Your task to perform on an android device: change timer sound Image 0: 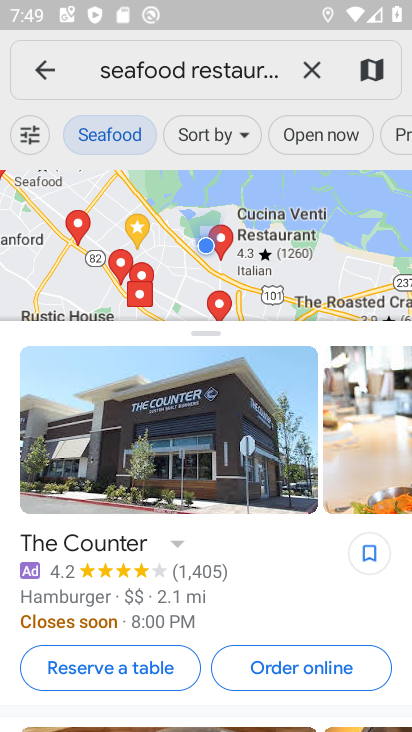
Step 0: press home button
Your task to perform on an android device: change timer sound Image 1: 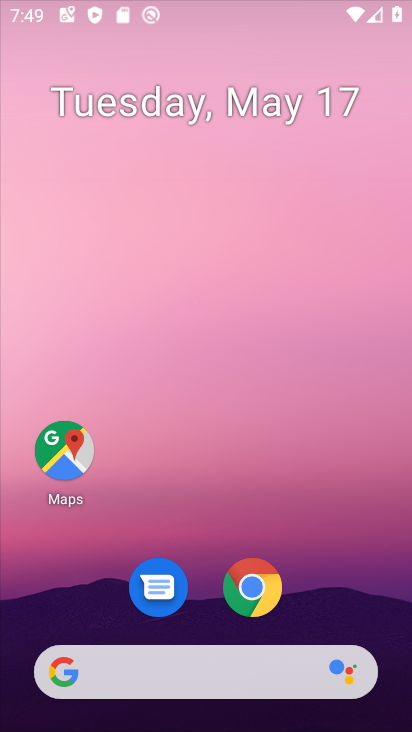
Step 1: drag from (351, 563) to (252, 172)
Your task to perform on an android device: change timer sound Image 2: 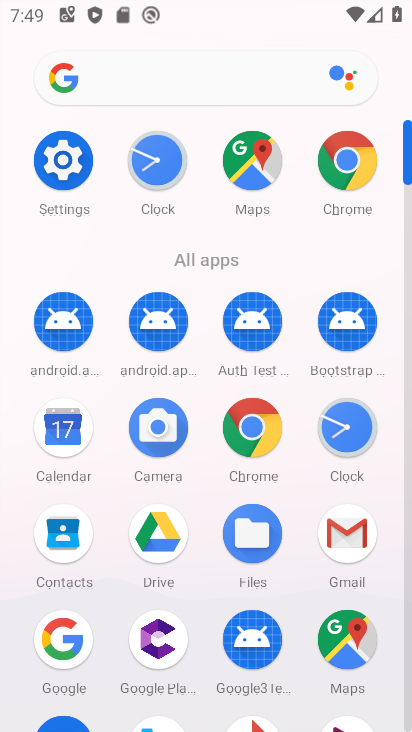
Step 2: click (50, 159)
Your task to perform on an android device: change timer sound Image 3: 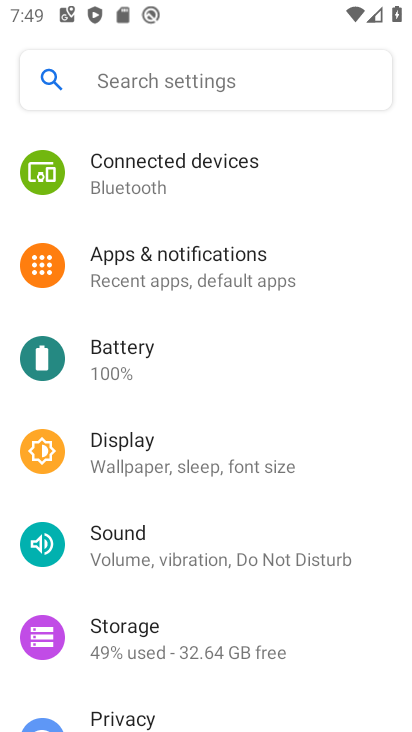
Step 3: click (165, 540)
Your task to perform on an android device: change timer sound Image 4: 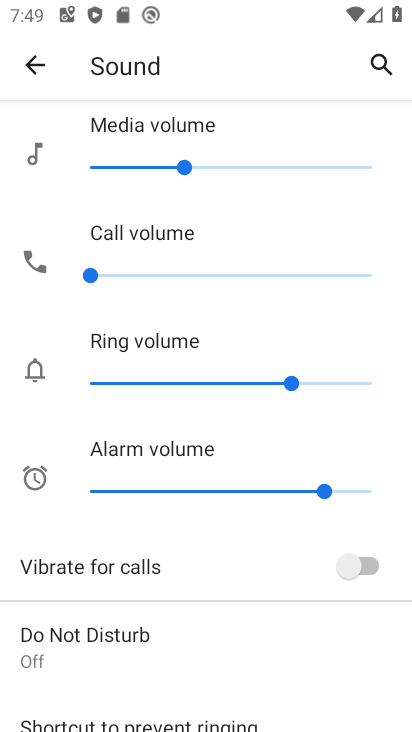
Step 4: drag from (276, 722) to (165, 91)
Your task to perform on an android device: change timer sound Image 5: 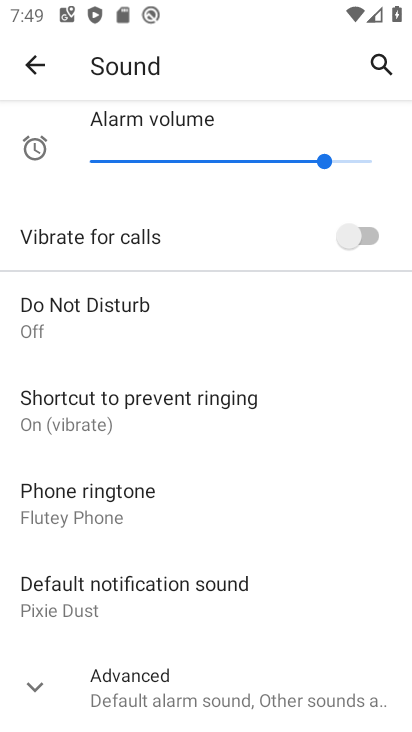
Step 5: drag from (228, 576) to (265, 259)
Your task to perform on an android device: change timer sound Image 6: 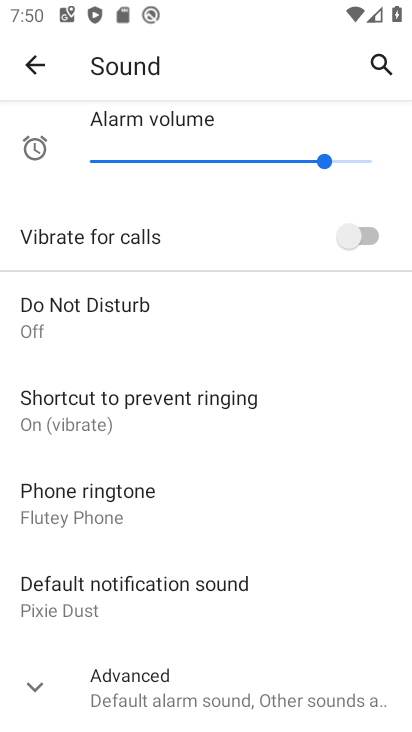
Step 6: click (140, 684)
Your task to perform on an android device: change timer sound Image 7: 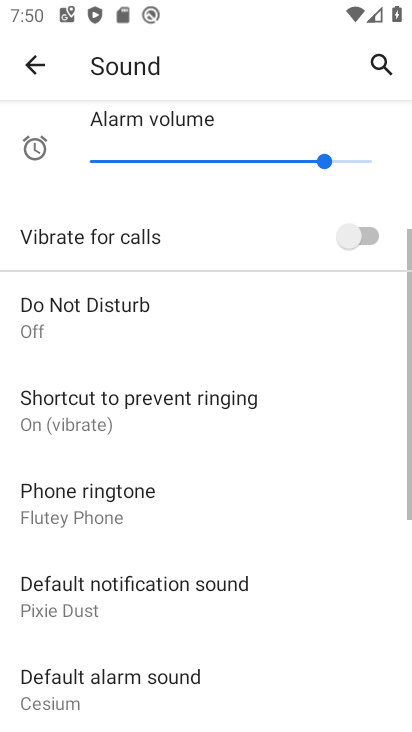
Step 7: drag from (161, 651) to (209, 252)
Your task to perform on an android device: change timer sound Image 8: 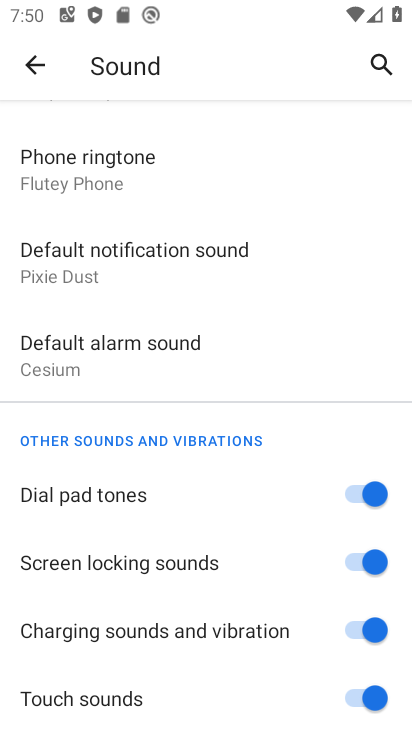
Step 8: click (142, 345)
Your task to perform on an android device: change timer sound Image 9: 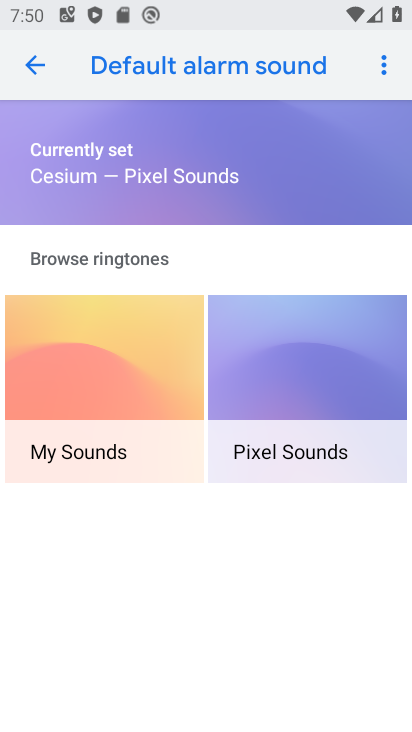
Step 9: click (34, 58)
Your task to perform on an android device: change timer sound Image 10: 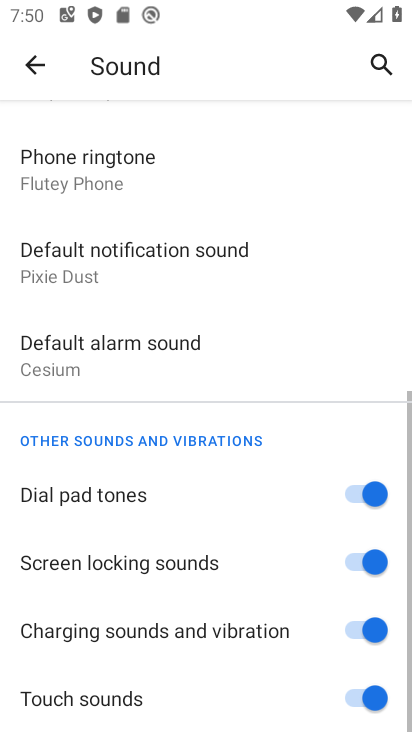
Step 10: drag from (177, 321) to (192, 595)
Your task to perform on an android device: change timer sound Image 11: 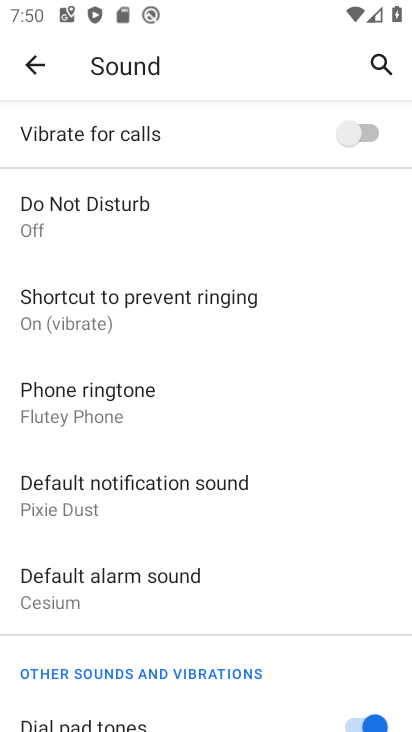
Step 11: drag from (224, 331) to (273, 307)
Your task to perform on an android device: change timer sound Image 12: 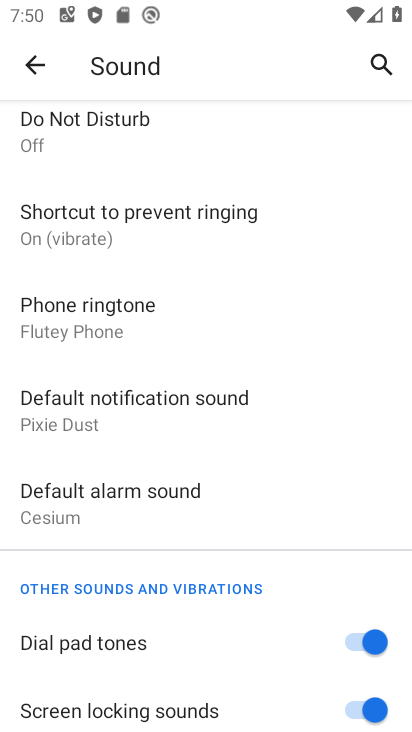
Step 12: click (156, 502)
Your task to perform on an android device: change timer sound Image 13: 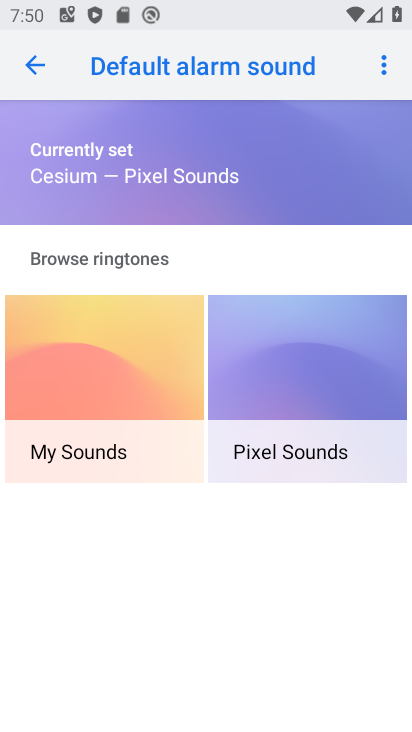
Step 13: press home button
Your task to perform on an android device: change timer sound Image 14: 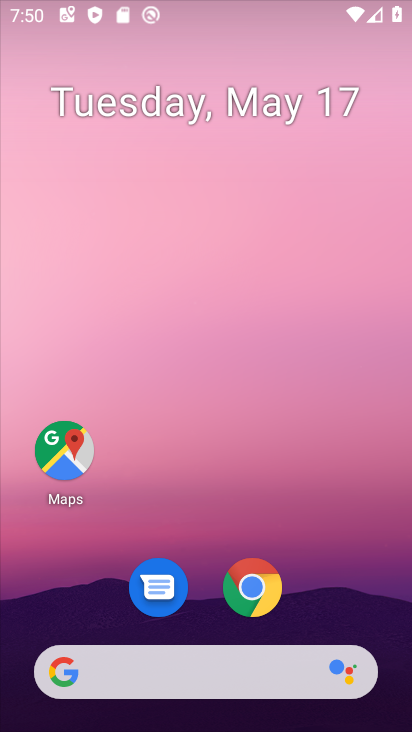
Step 14: drag from (332, 429) to (278, 77)
Your task to perform on an android device: change timer sound Image 15: 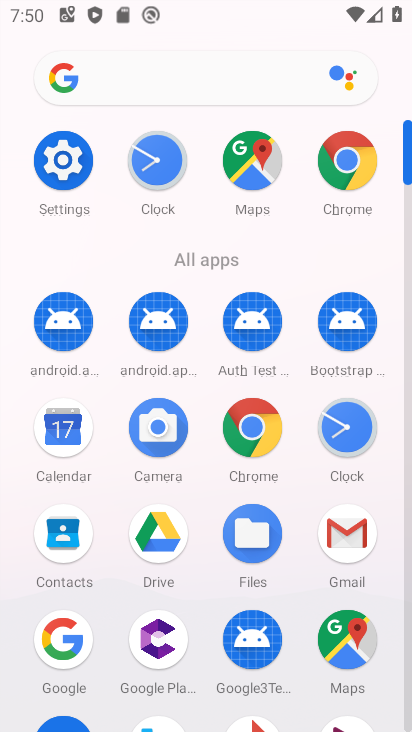
Step 15: click (355, 414)
Your task to perform on an android device: change timer sound Image 16: 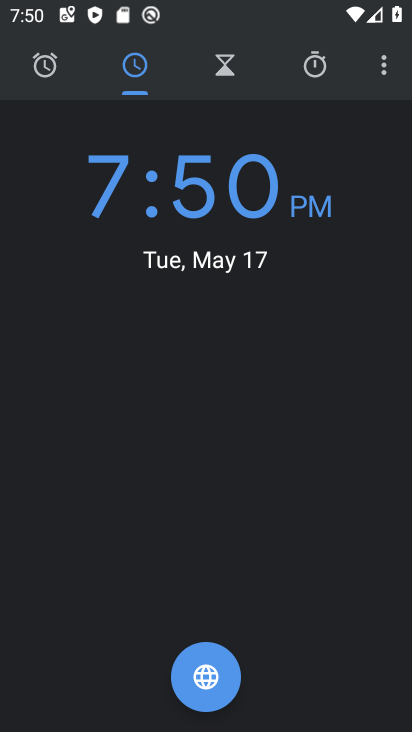
Step 16: drag from (383, 67) to (231, 134)
Your task to perform on an android device: change timer sound Image 17: 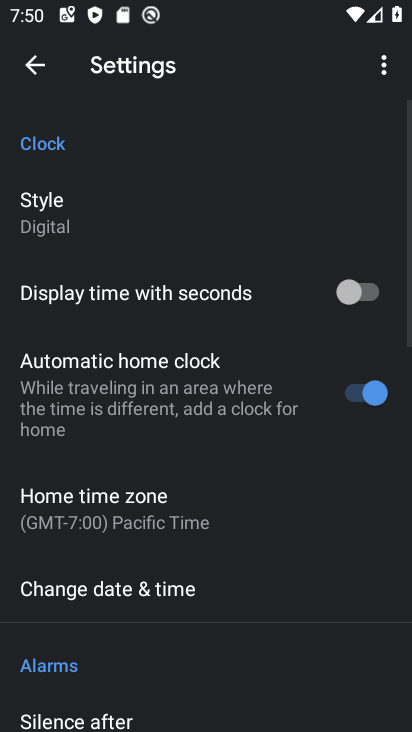
Step 17: drag from (242, 654) to (244, 99)
Your task to perform on an android device: change timer sound Image 18: 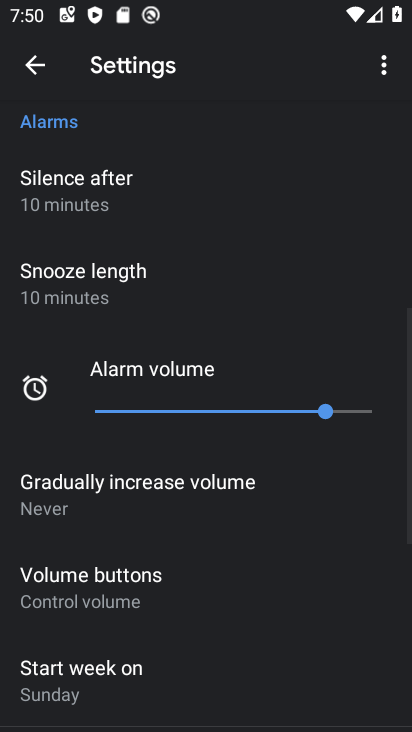
Step 18: drag from (141, 530) to (192, 181)
Your task to perform on an android device: change timer sound Image 19: 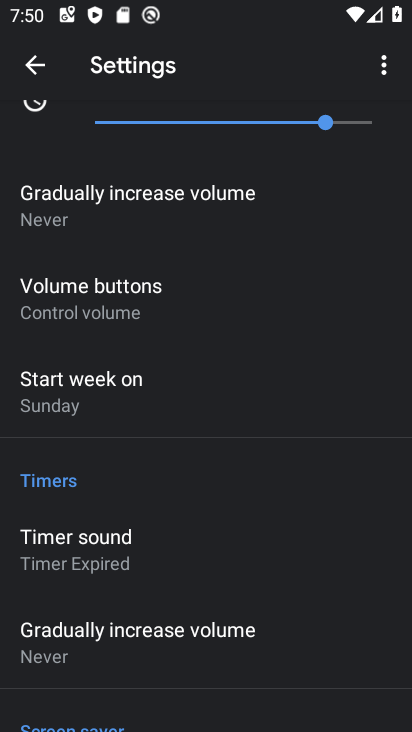
Step 19: click (84, 547)
Your task to perform on an android device: change timer sound Image 20: 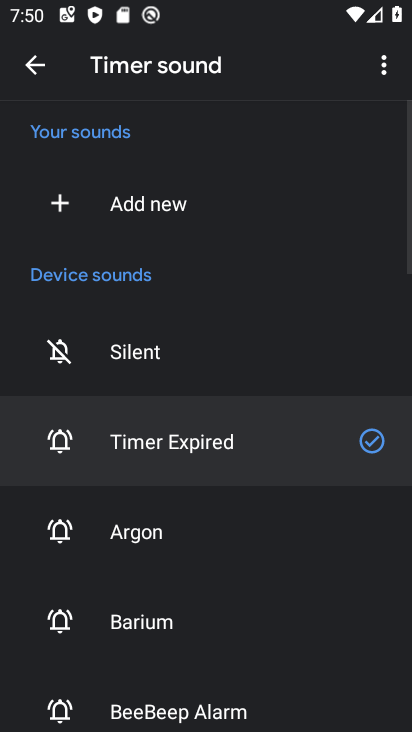
Step 20: click (95, 537)
Your task to perform on an android device: change timer sound Image 21: 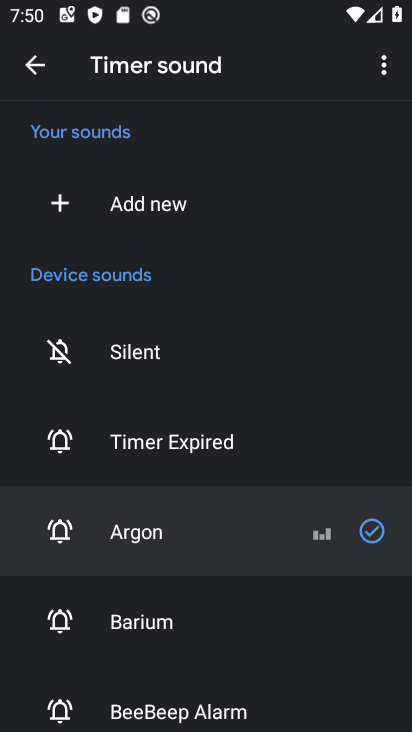
Step 21: task complete